Your task to perform on an android device: Open Chrome and go to settings Image 0: 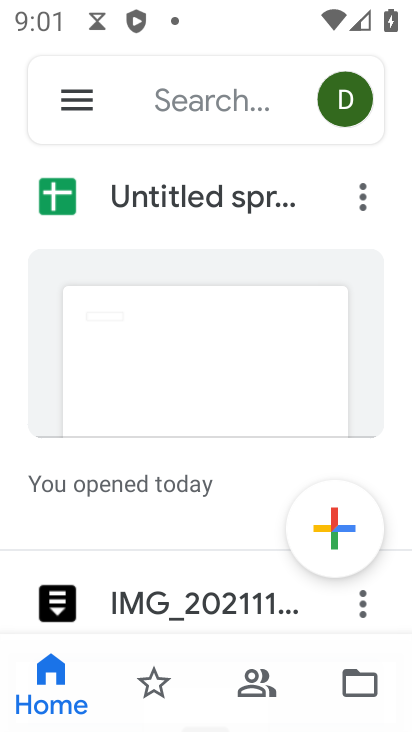
Step 0: press back button
Your task to perform on an android device: Open Chrome and go to settings Image 1: 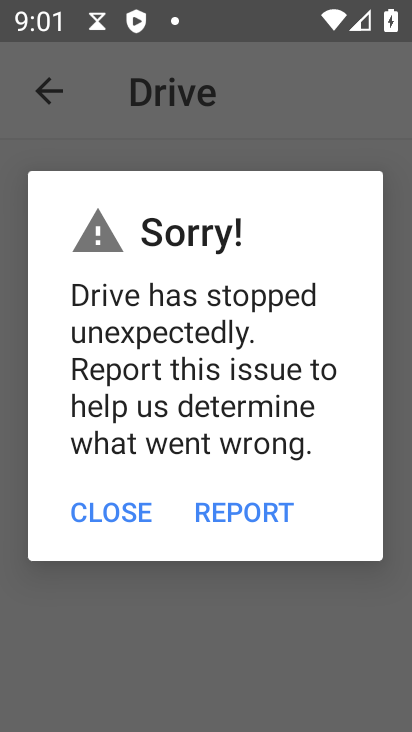
Step 1: click (88, 508)
Your task to perform on an android device: Open Chrome and go to settings Image 2: 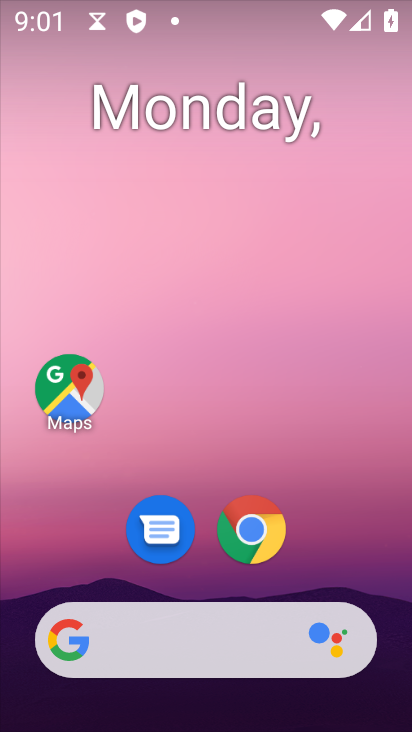
Step 2: drag from (375, 655) to (101, 117)
Your task to perform on an android device: Open Chrome and go to settings Image 3: 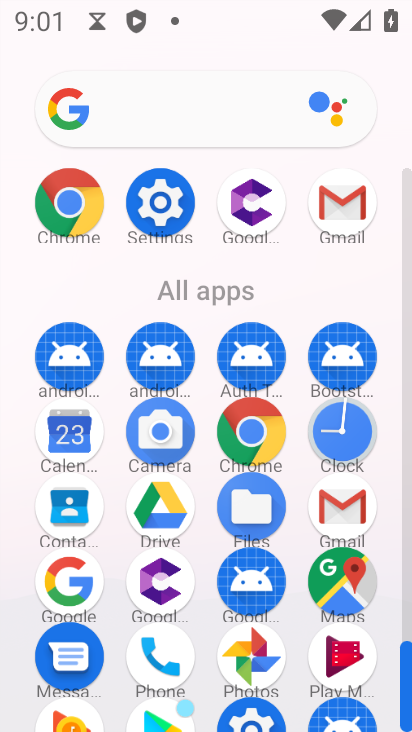
Step 3: click (149, 204)
Your task to perform on an android device: Open Chrome and go to settings Image 4: 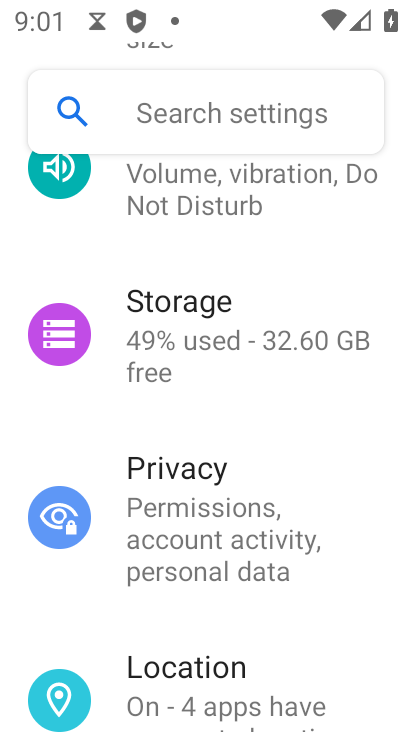
Step 4: press back button
Your task to perform on an android device: Open Chrome and go to settings Image 5: 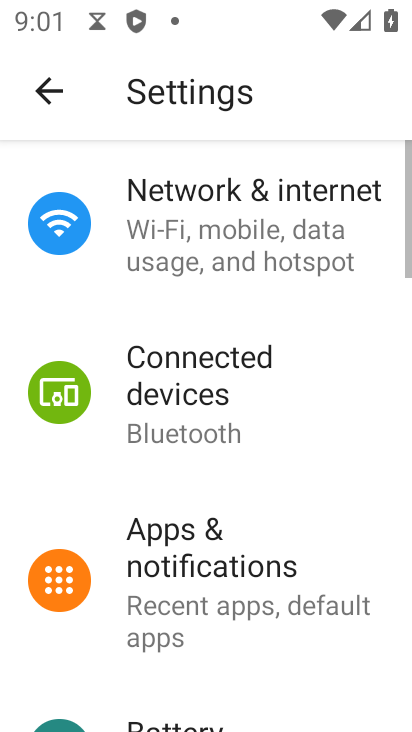
Step 5: click (41, 97)
Your task to perform on an android device: Open Chrome and go to settings Image 6: 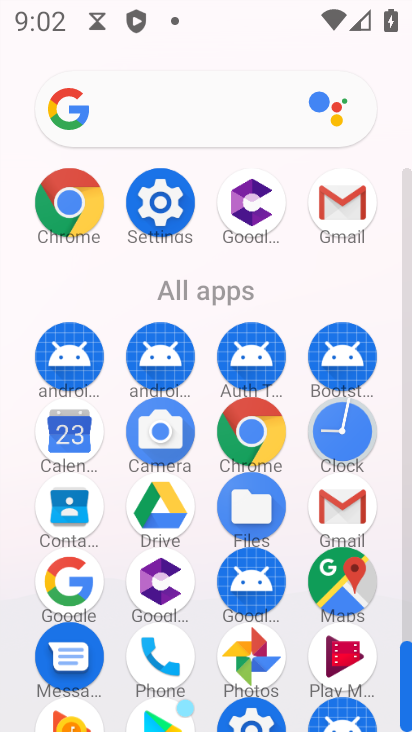
Step 6: click (78, 208)
Your task to perform on an android device: Open Chrome and go to settings Image 7: 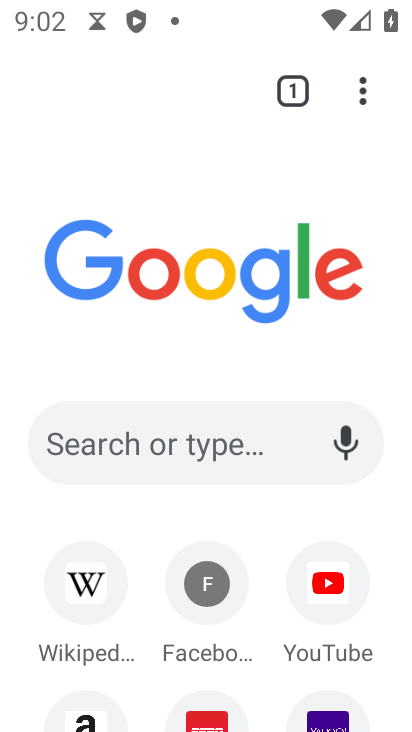
Step 7: drag from (357, 96) to (119, 574)
Your task to perform on an android device: Open Chrome and go to settings Image 8: 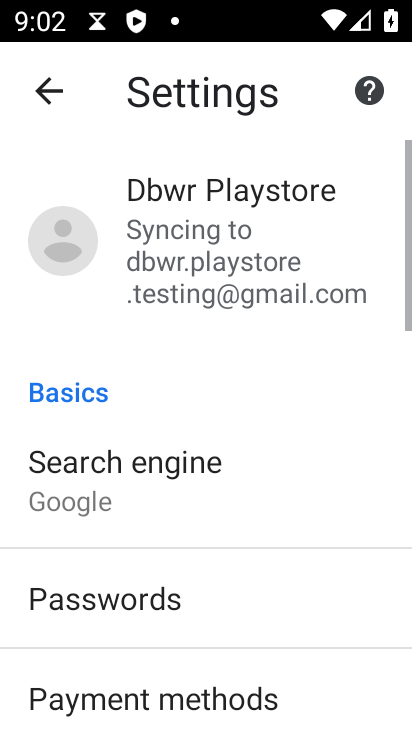
Step 8: click (118, 573)
Your task to perform on an android device: Open Chrome and go to settings Image 9: 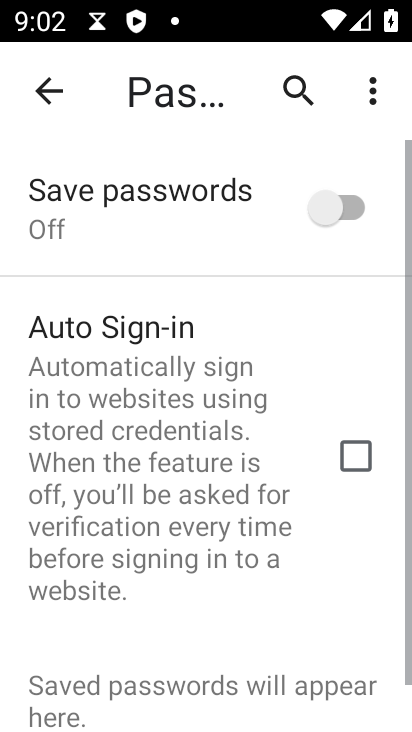
Step 9: drag from (160, 613) to (157, 220)
Your task to perform on an android device: Open Chrome and go to settings Image 10: 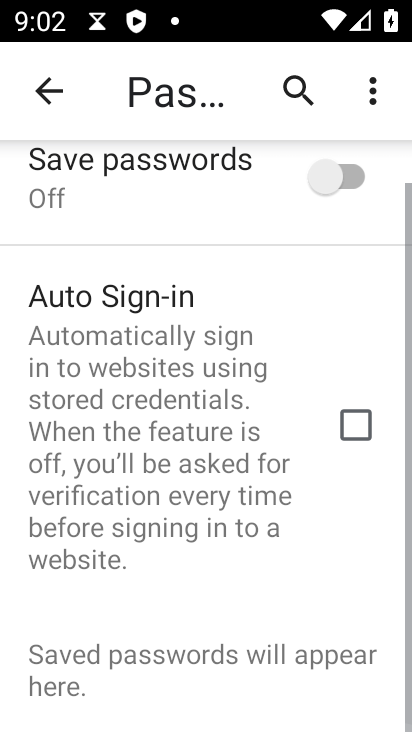
Step 10: click (197, 201)
Your task to perform on an android device: Open Chrome and go to settings Image 11: 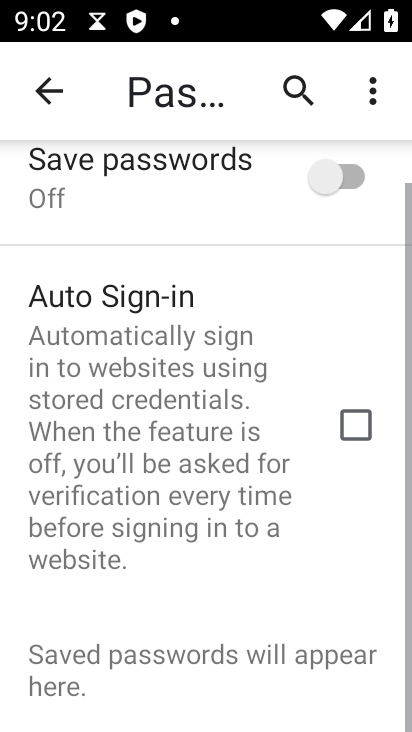
Step 11: click (41, 93)
Your task to perform on an android device: Open Chrome and go to settings Image 12: 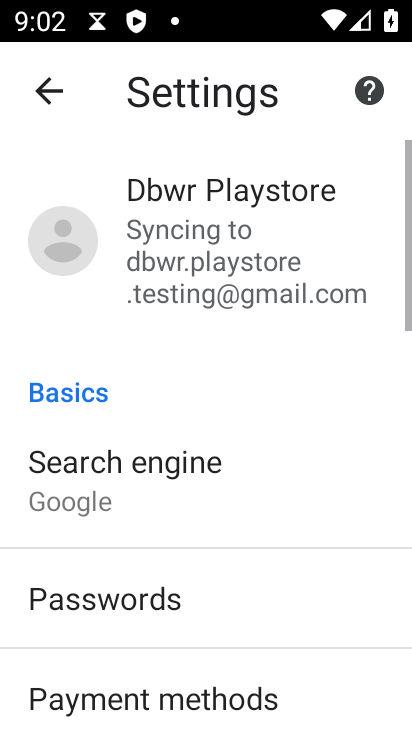
Step 12: task complete